Your task to perform on an android device: change notifications settings Image 0: 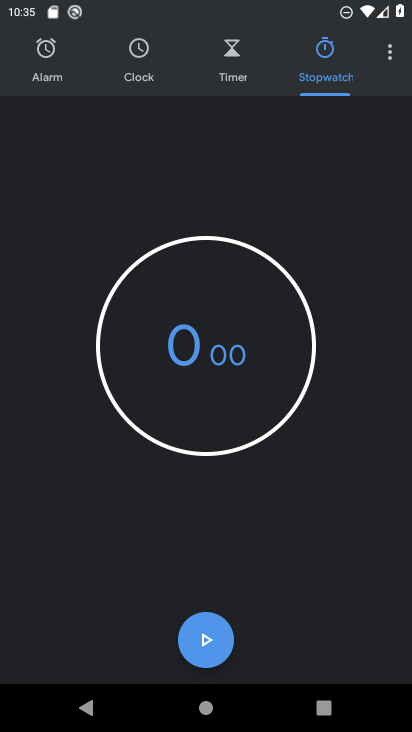
Step 0: press home button
Your task to perform on an android device: change notifications settings Image 1: 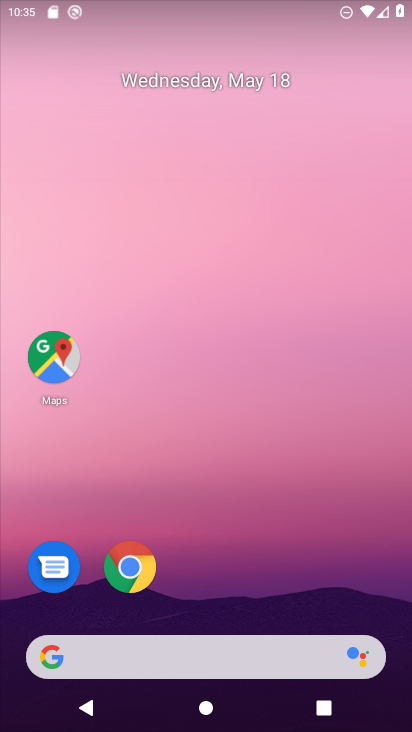
Step 1: drag from (261, 671) to (299, 155)
Your task to perform on an android device: change notifications settings Image 2: 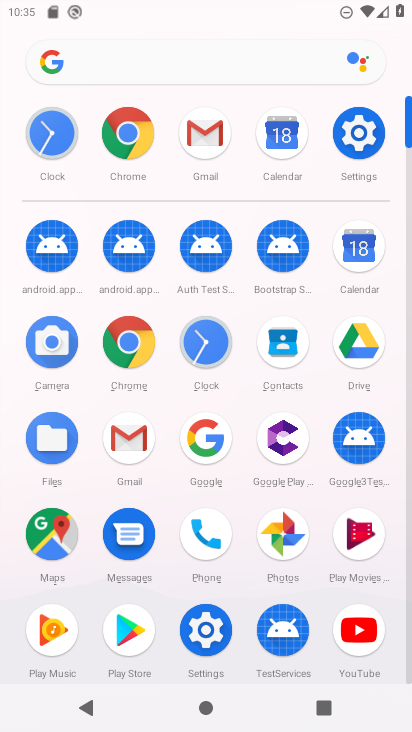
Step 2: click (353, 148)
Your task to perform on an android device: change notifications settings Image 3: 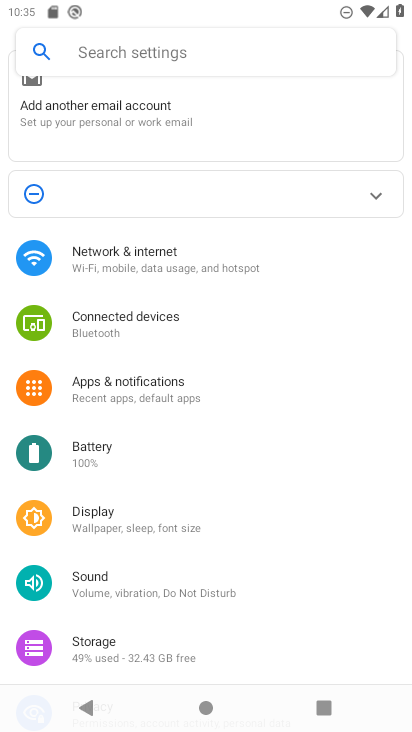
Step 3: click (142, 58)
Your task to perform on an android device: change notifications settings Image 4: 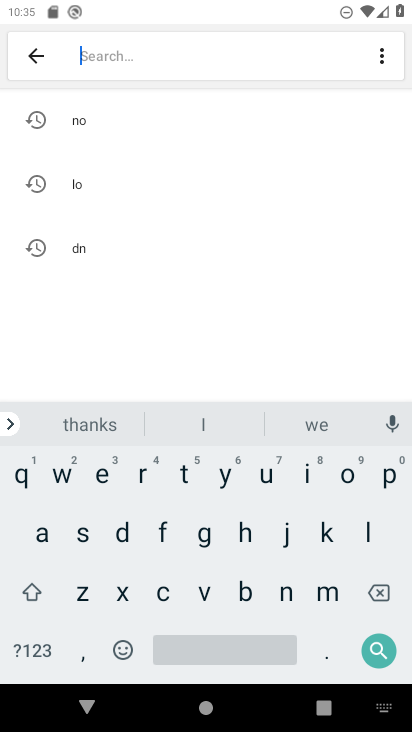
Step 4: click (103, 117)
Your task to perform on an android device: change notifications settings Image 5: 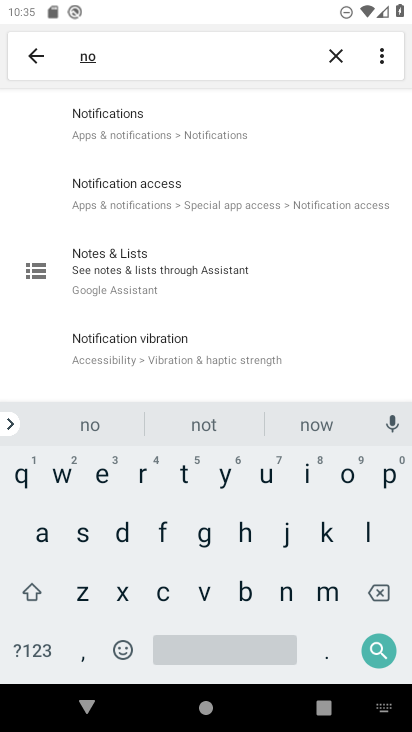
Step 5: click (181, 122)
Your task to perform on an android device: change notifications settings Image 6: 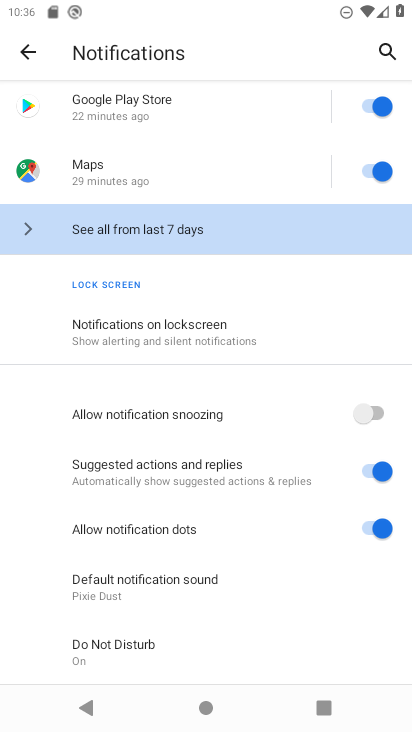
Step 6: click (161, 331)
Your task to perform on an android device: change notifications settings Image 7: 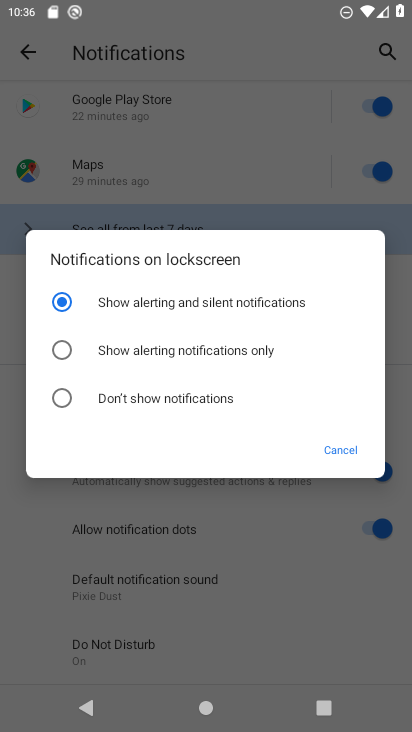
Step 7: click (128, 363)
Your task to perform on an android device: change notifications settings Image 8: 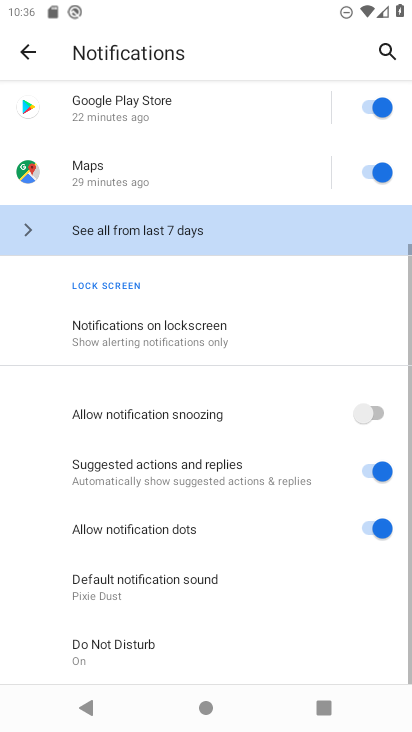
Step 8: task complete